Your task to perform on an android device: Search for sushi restaurants on Maps Image 0: 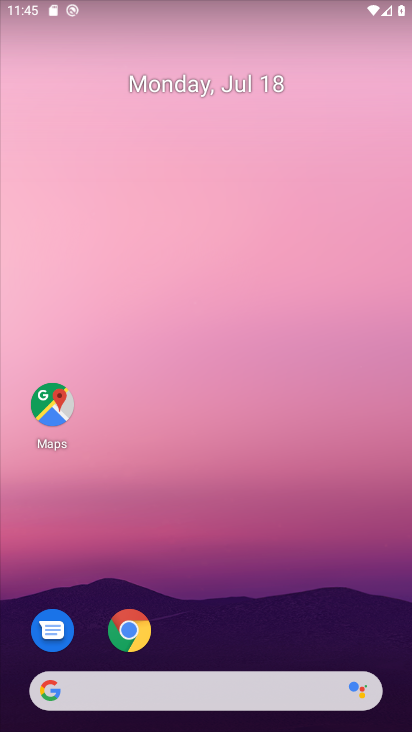
Step 0: drag from (197, 640) to (251, 168)
Your task to perform on an android device: Search for sushi restaurants on Maps Image 1: 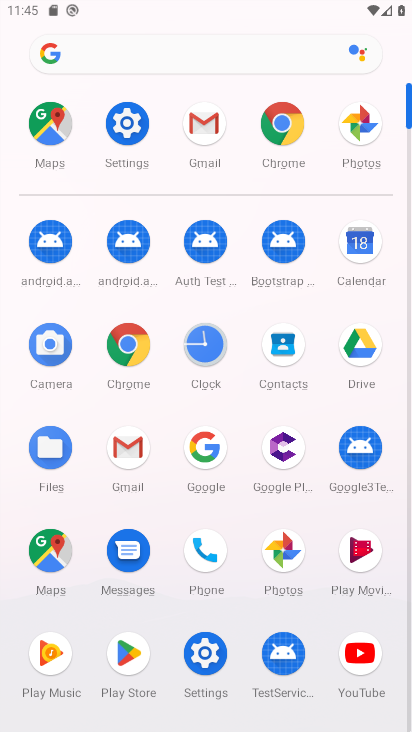
Step 1: click (31, 556)
Your task to perform on an android device: Search for sushi restaurants on Maps Image 2: 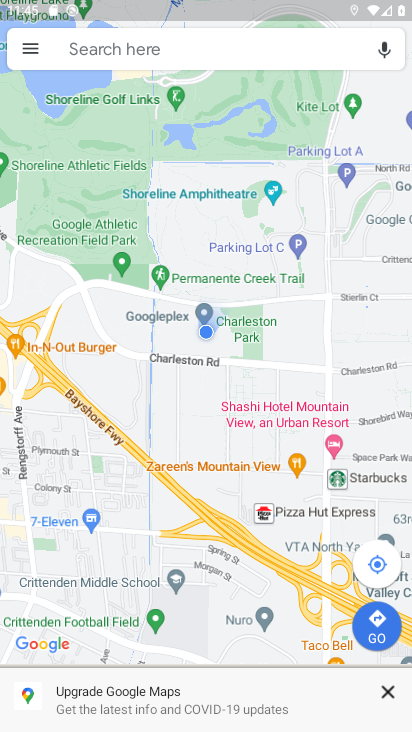
Step 2: click (201, 52)
Your task to perform on an android device: Search for sushi restaurants on Maps Image 3: 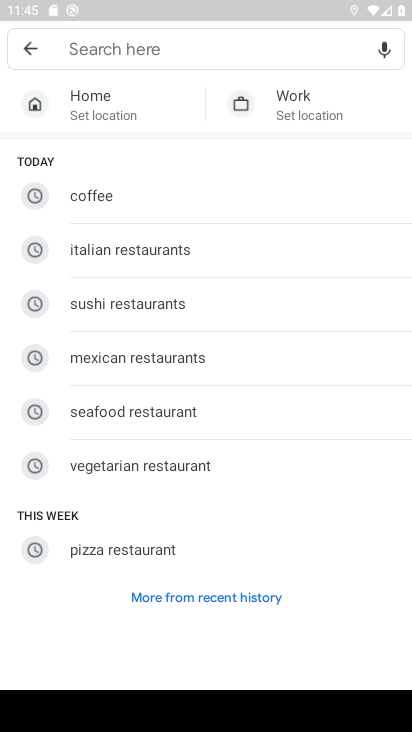
Step 3: type "sushi restaurants"
Your task to perform on an android device: Search for sushi restaurants on Maps Image 4: 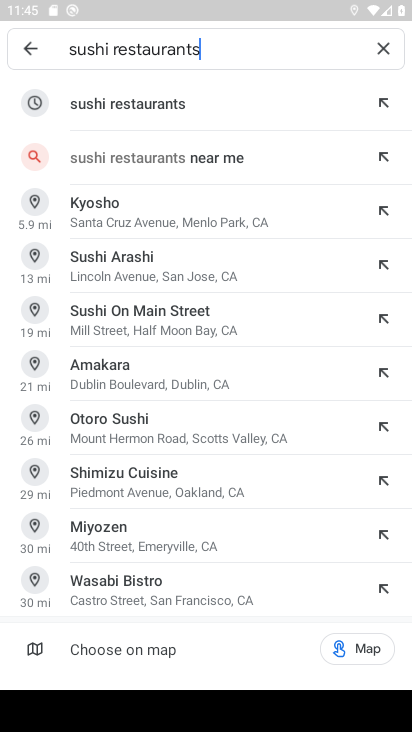
Step 4: click (130, 103)
Your task to perform on an android device: Search for sushi restaurants on Maps Image 5: 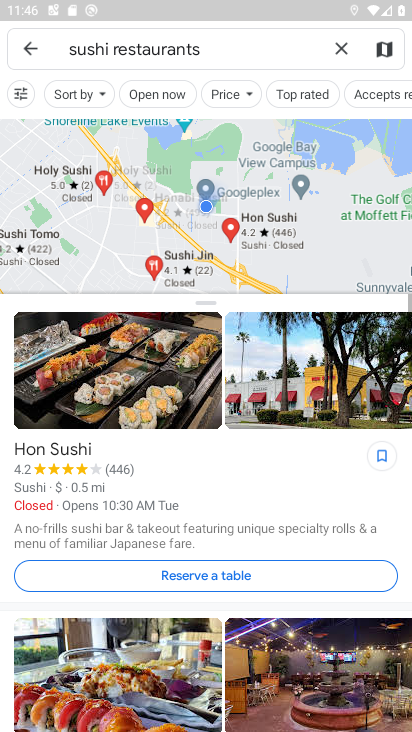
Step 5: task complete